Your task to perform on an android device: find snoozed emails in the gmail app Image 0: 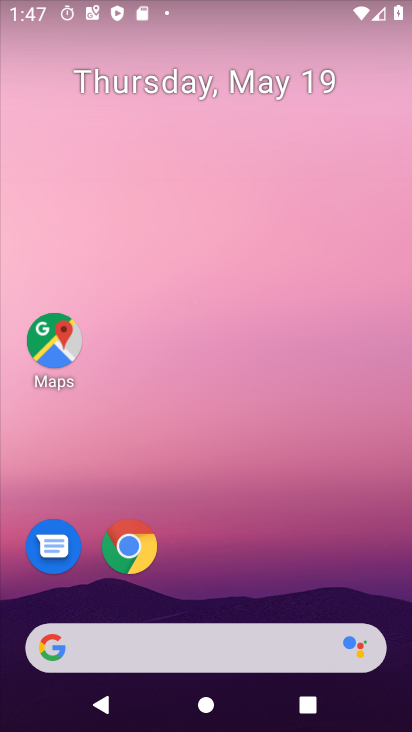
Step 0: drag from (179, 601) to (266, 18)
Your task to perform on an android device: find snoozed emails in the gmail app Image 1: 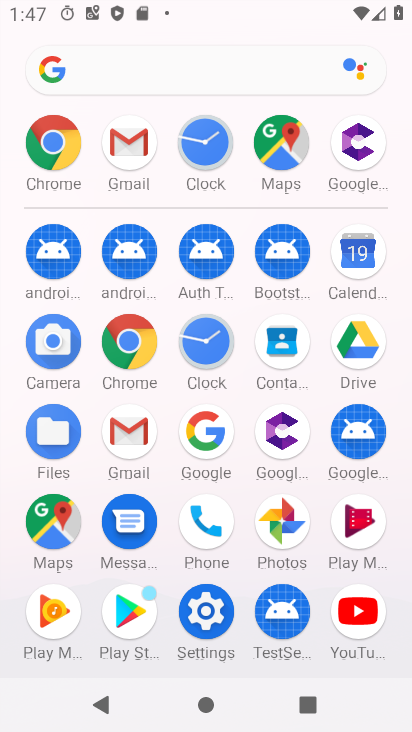
Step 1: click (120, 142)
Your task to perform on an android device: find snoozed emails in the gmail app Image 2: 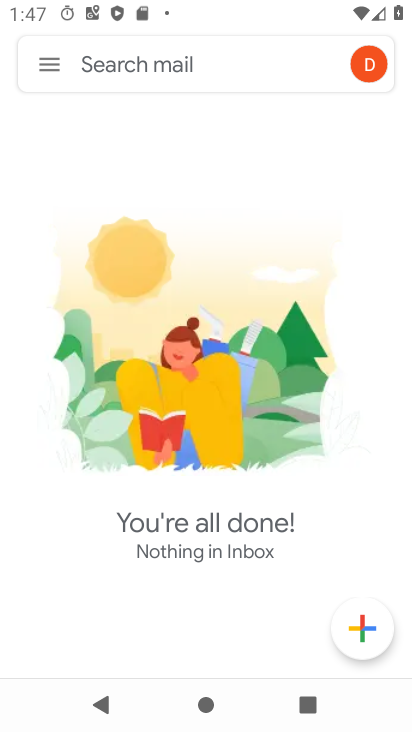
Step 2: click (46, 59)
Your task to perform on an android device: find snoozed emails in the gmail app Image 3: 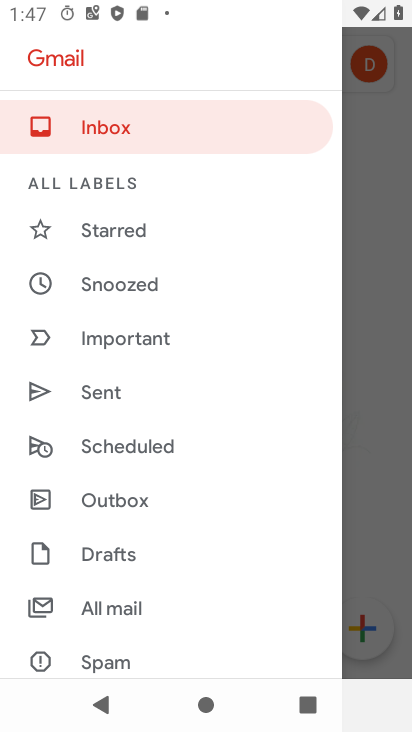
Step 3: click (124, 277)
Your task to perform on an android device: find snoozed emails in the gmail app Image 4: 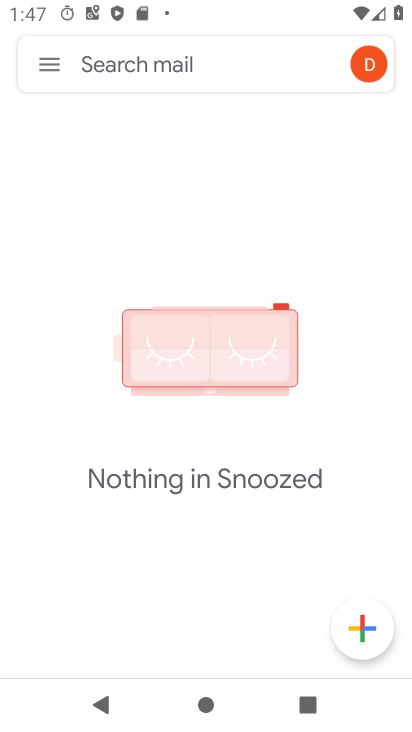
Step 4: task complete